Your task to perform on an android device: set default search engine in the chrome app Image 0: 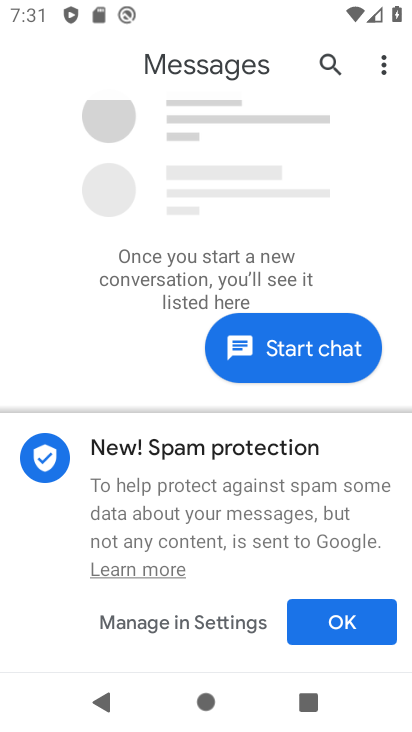
Step 0: press home button
Your task to perform on an android device: set default search engine in the chrome app Image 1: 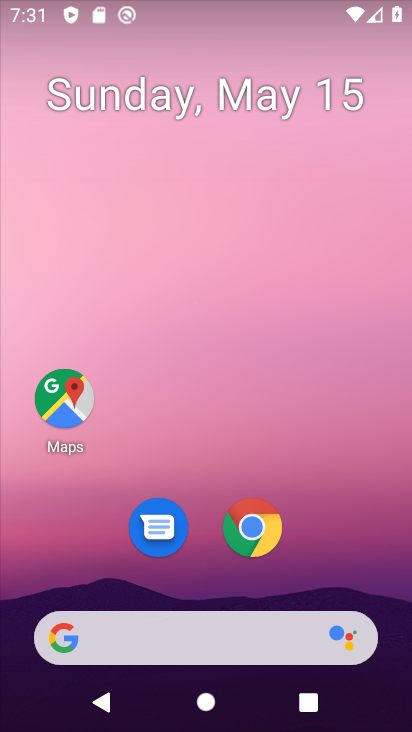
Step 1: click (254, 541)
Your task to perform on an android device: set default search engine in the chrome app Image 2: 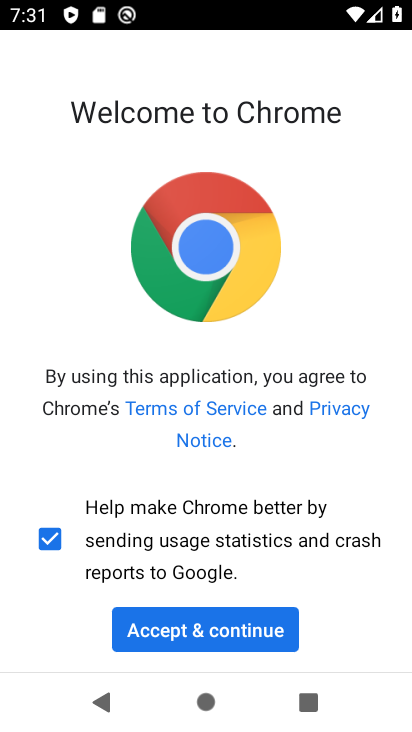
Step 2: click (227, 641)
Your task to perform on an android device: set default search engine in the chrome app Image 3: 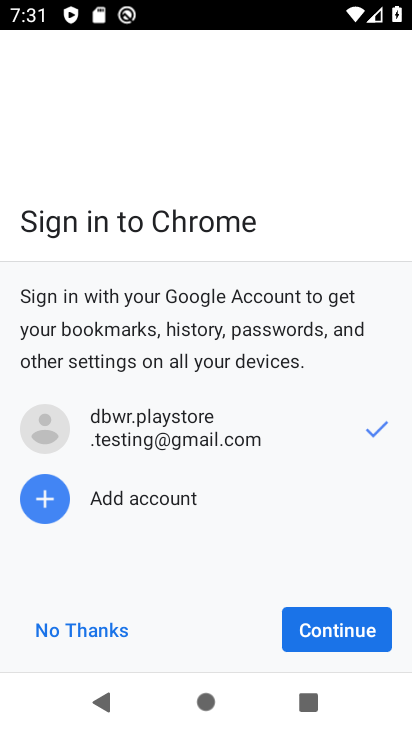
Step 3: click (332, 638)
Your task to perform on an android device: set default search engine in the chrome app Image 4: 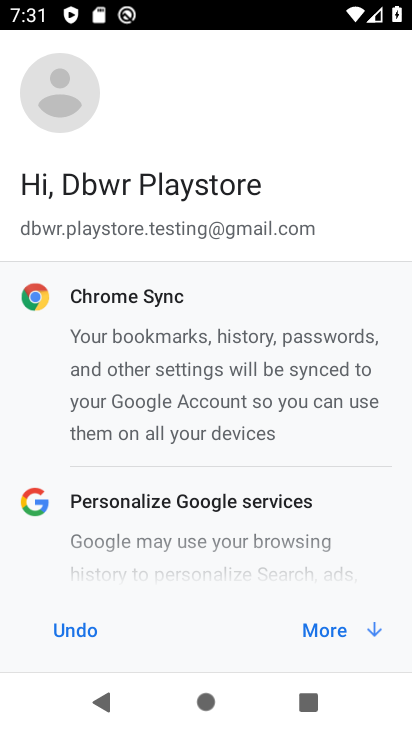
Step 4: click (316, 629)
Your task to perform on an android device: set default search engine in the chrome app Image 5: 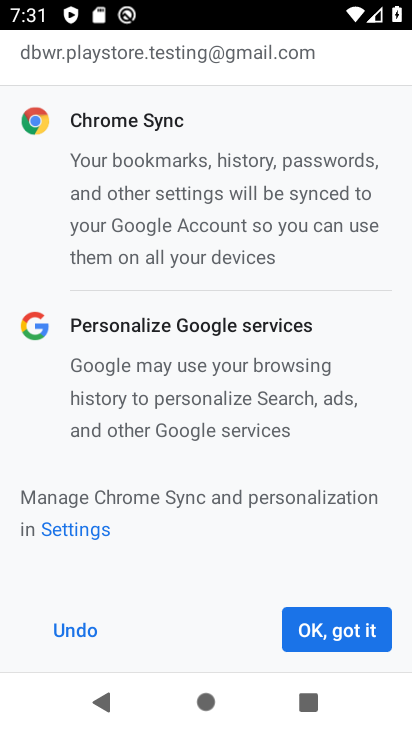
Step 5: click (315, 629)
Your task to perform on an android device: set default search engine in the chrome app Image 6: 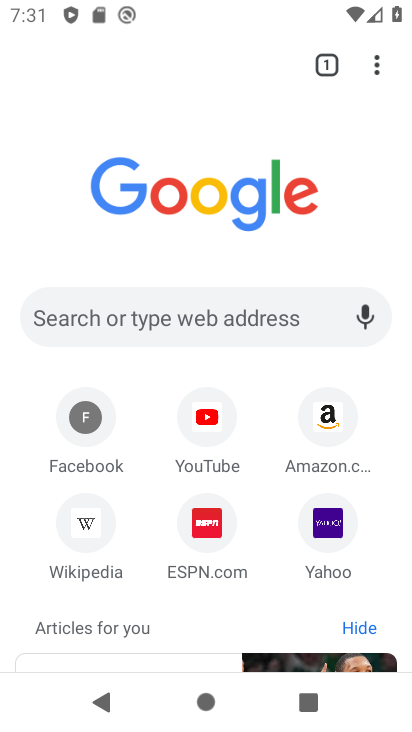
Step 6: click (380, 64)
Your task to perform on an android device: set default search engine in the chrome app Image 7: 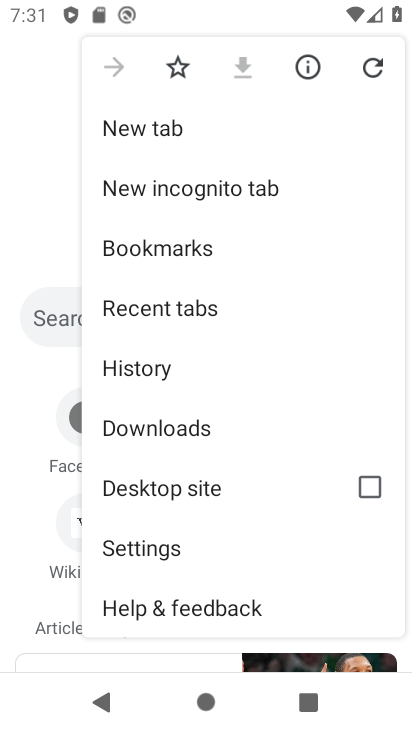
Step 7: click (162, 559)
Your task to perform on an android device: set default search engine in the chrome app Image 8: 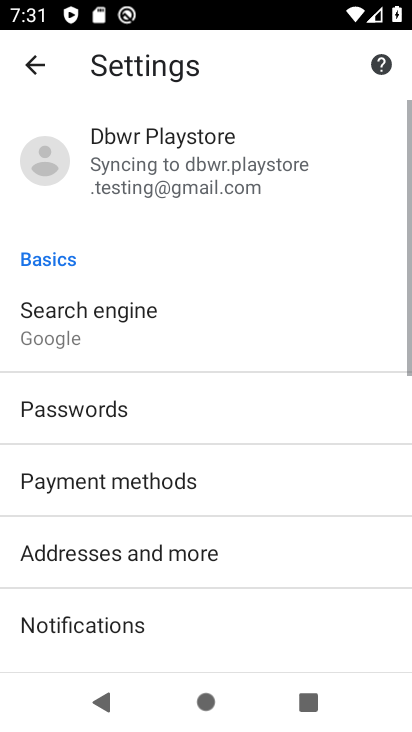
Step 8: click (80, 330)
Your task to perform on an android device: set default search engine in the chrome app Image 9: 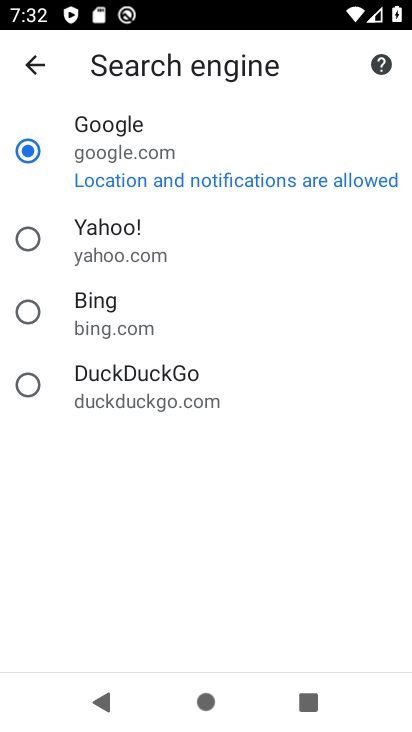
Step 9: task complete